Your task to perform on an android device: turn off picture-in-picture Image 0: 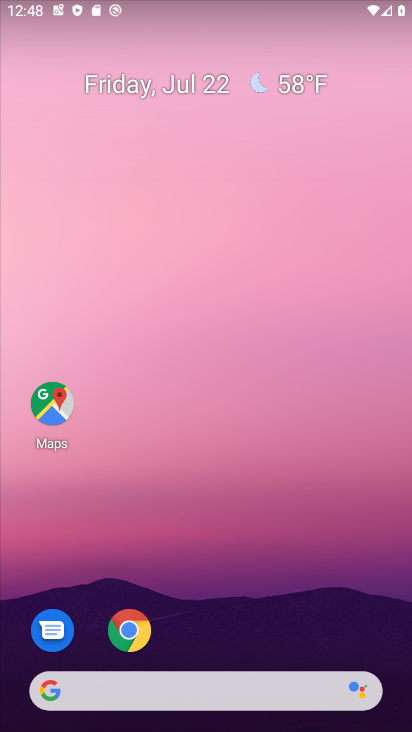
Step 0: click (234, 216)
Your task to perform on an android device: turn off picture-in-picture Image 1: 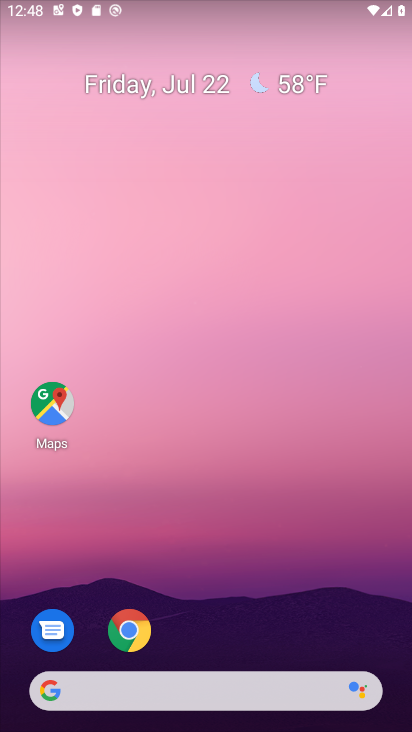
Step 1: click (118, 645)
Your task to perform on an android device: turn off picture-in-picture Image 2: 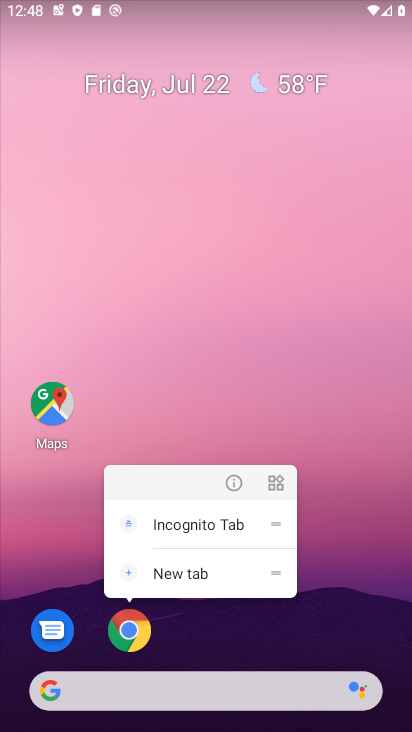
Step 2: click (229, 485)
Your task to perform on an android device: turn off picture-in-picture Image 3: 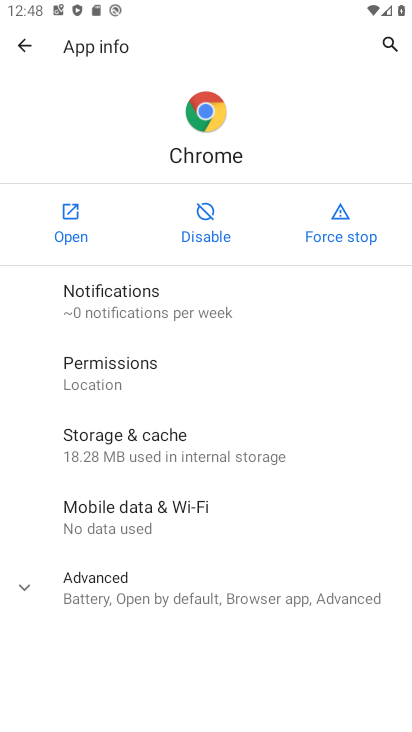
Step 3: click (153, 306)
Your task to perform on an android device: turn off picture-in-picture Image 4: 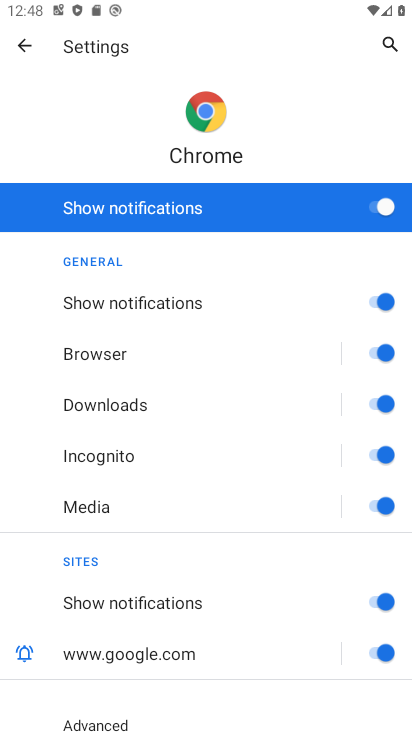
Step 4: click (23, 53)
Your task to perform on an android device: turn off picture-in-picture Image 5: 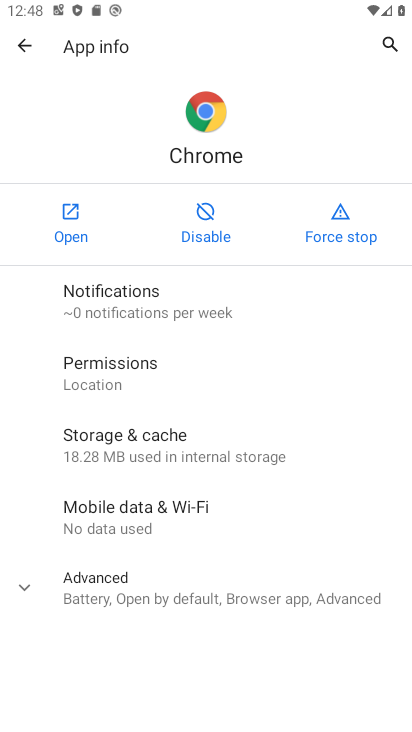
Step 5: click (146, 599)
Your task to perform on an android device: turn off picture-in-picture Image 6: 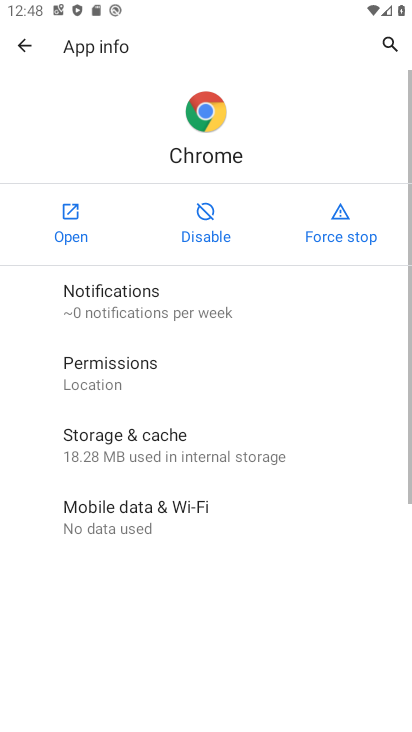
Step 6: drag from (162, 610) to (154, 213)
Your task to perform on an android device: turn off picture-in-picture Image 7: 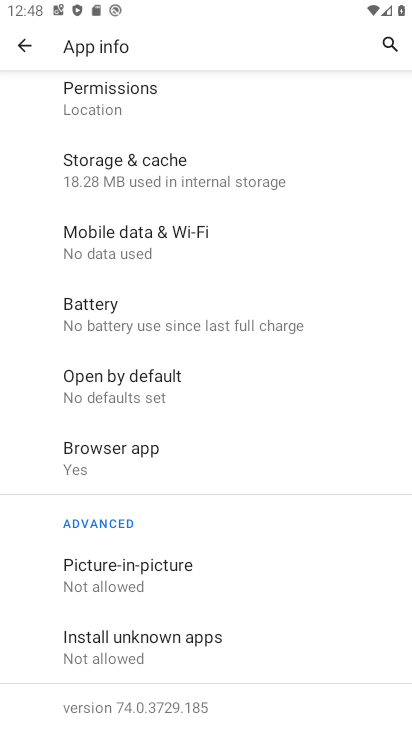
Step 7: click (130, 563)
Your task to perform on an android device: turn off picture-in-picture Image 8: 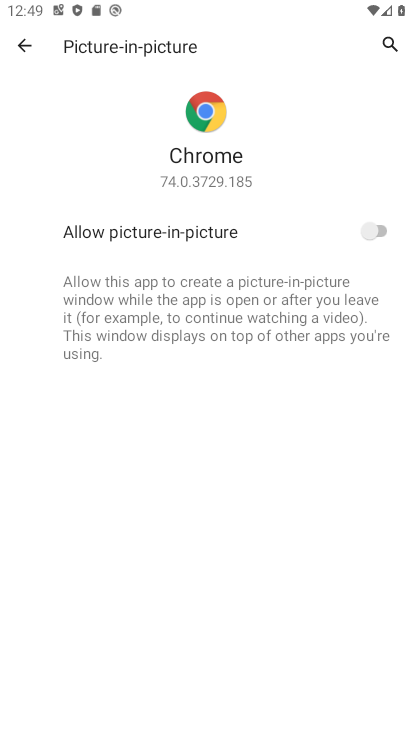
Step 8: task complete